Your task to perform on an android device: Go to Yahoo.com Image 0: 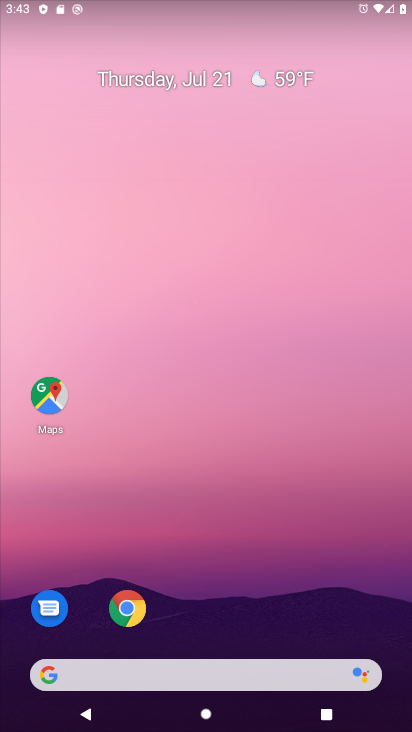
Step 0: drag from (303, 663) to (332, 42)
Your task to perform on an android device: Go to Yahoo.com Image 1: 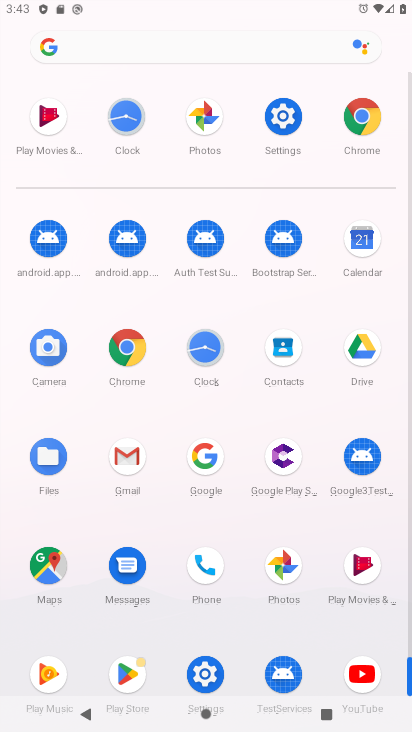
Step 1: click (134, 345)
Your task to perform on an android device: Go to Yahoo.com Image 2: 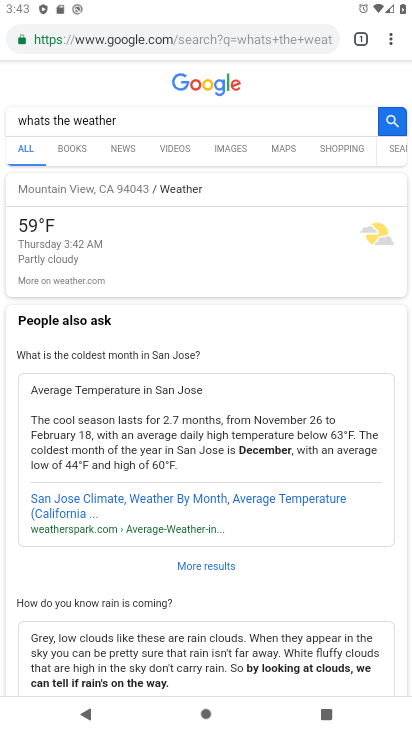
Step 2: click (307, 32)
Your task to perform on an android device: Go to Yahoo.com Image 3: 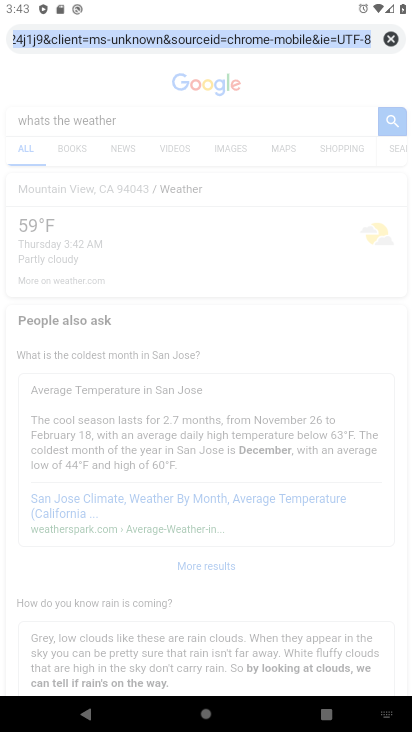
Step 3: type "yahoo.com"
Your task to perform on an android device: Go to Yahoo.com Image 4: 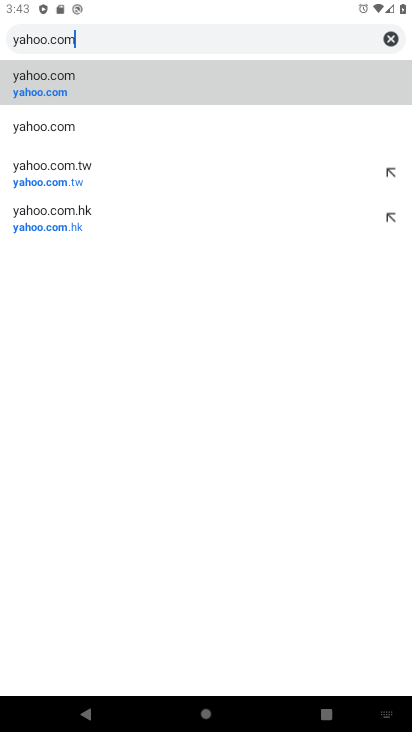
Step 4: click (187, 85)
Your task to perform on an android device: Go to Yahoo.com Image 5: 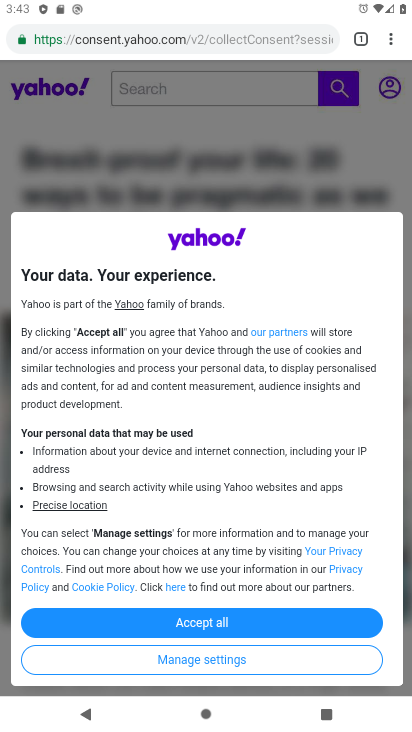
Step 5: task complete